Your task to perform on an android device: Open the web browser Image 0: 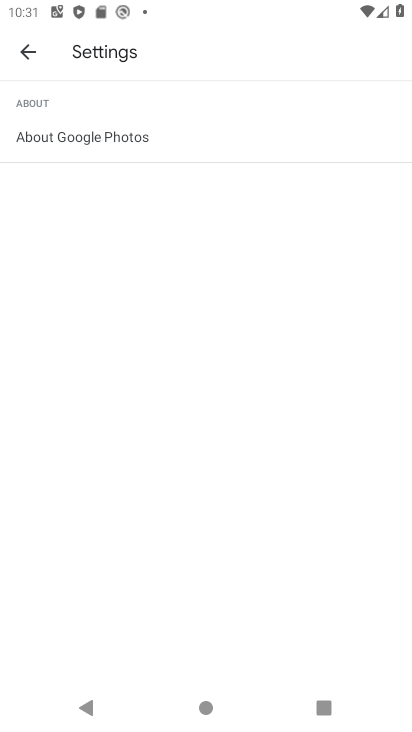
Step 0: click (13, 48)
Your task to perform on an android device: Open the web browser Image 1: 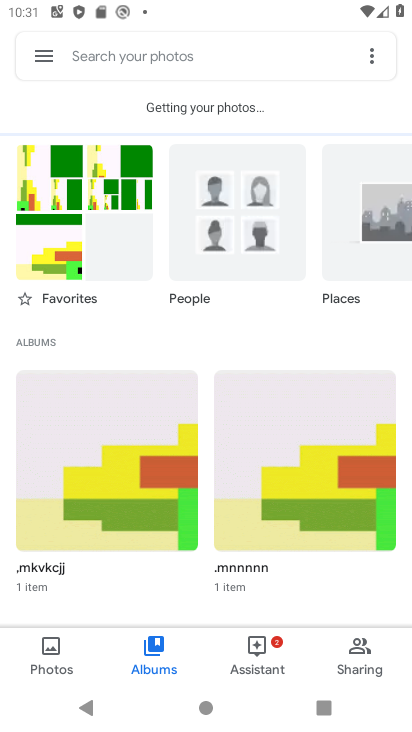
Step 1: press back button
Your task to perform on an android device: Open the web browser Image 2: 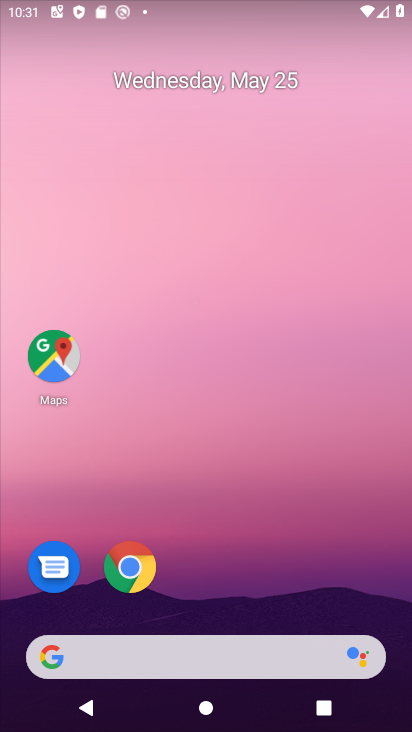
Step 2: drag from (269, 670) to (238, 121)
Your task to perform on an android device: Open the web browser Image 3: 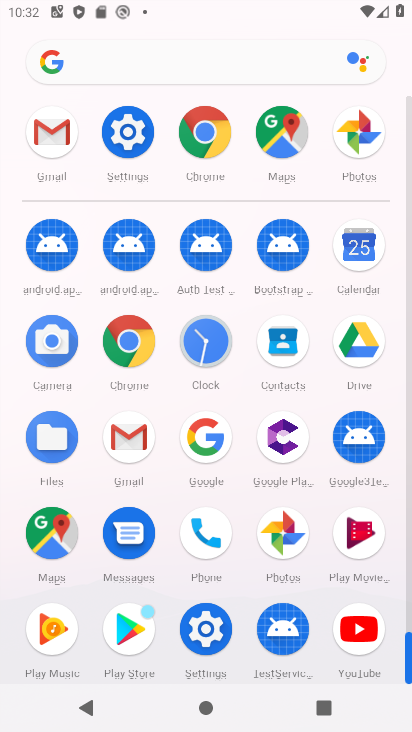
Step 3: click (196, 138)
Your task to perform on an android device: Open the web browser Image 4: 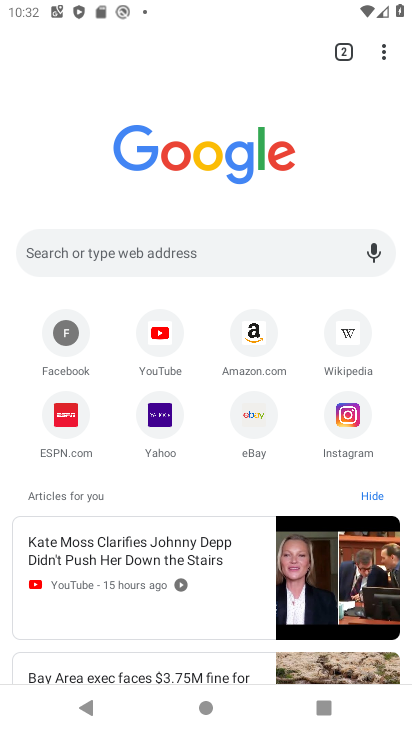
Step 4: click (62, 249)
Your task to perform on an android device: Open the web browser Image 5: 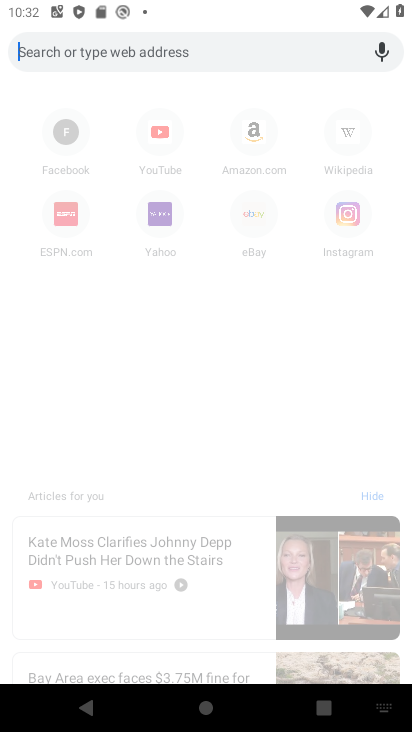
Step 5: click (12, 44)
Your task to perform on an android device: Open the web browser Image 6: 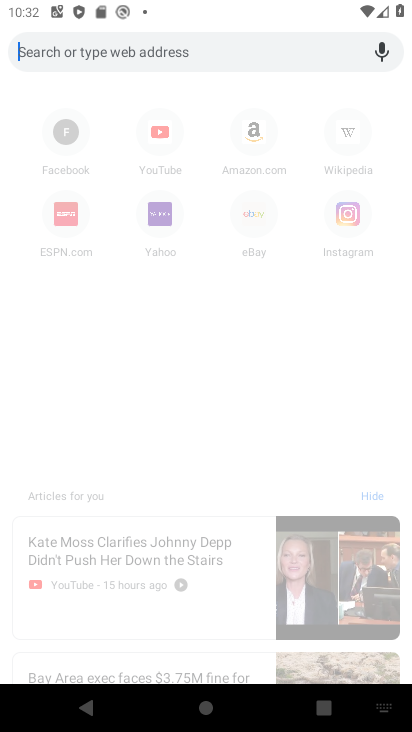
Step 6: click (14, 47)
Your task to perform on an android device: Open the web browser Image 7: 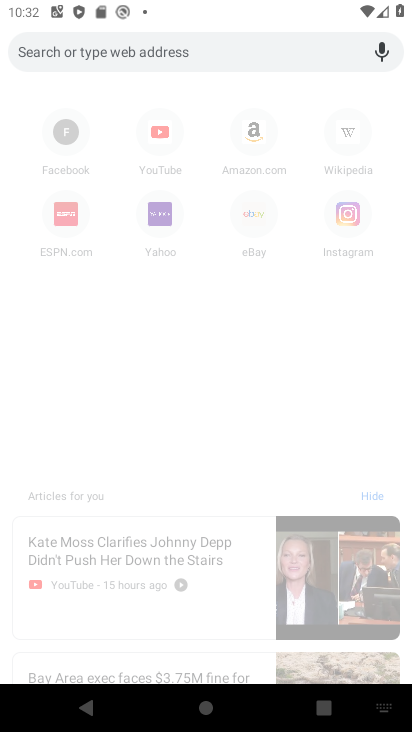
Step 7: click (22, 47)
Your task to perform on an android device: Open the web browser Image 8: 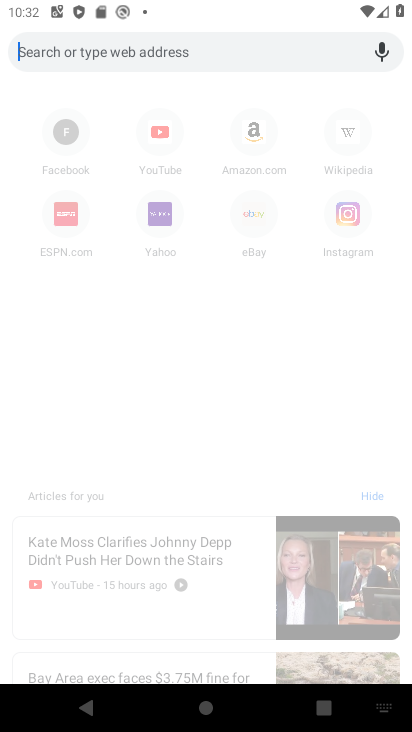
Step 8: click (26, 45)
Your task to perform on an android device: Open the web browser Image 9: 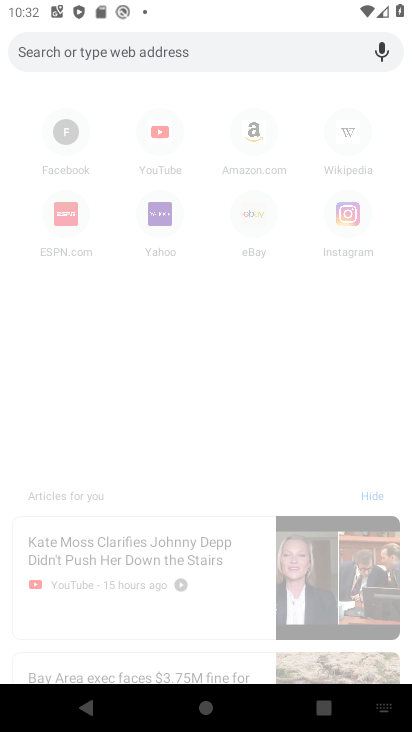
Step 9: press back button
Your task to perform on an android device: Open the web browser Image 10: 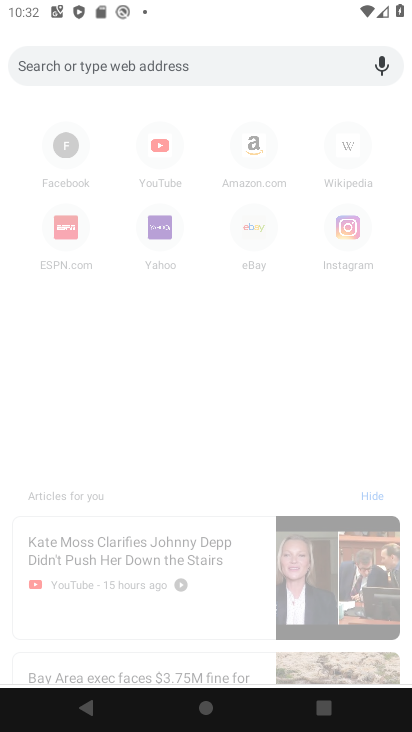
Step 10: press back button
Your task to perform on an android device: Open the web browser Image 11: 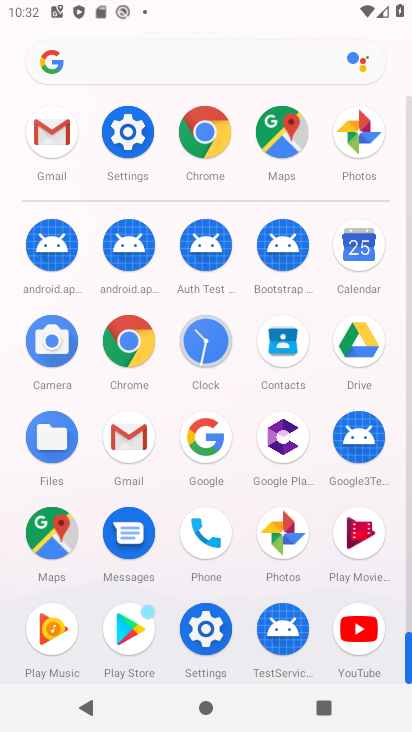
Step 11: click (212, 124)
Your task to perform on an android device: Open the web browser Image 12: 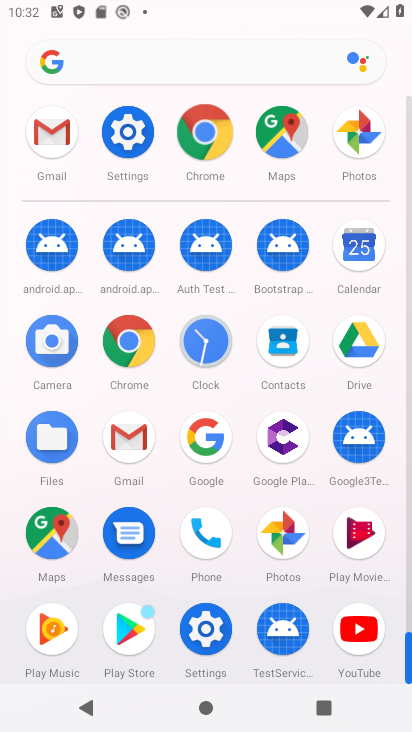
Step 12: click (212, 124)
Your task to perform on an android device: Open the web browser Image 13: 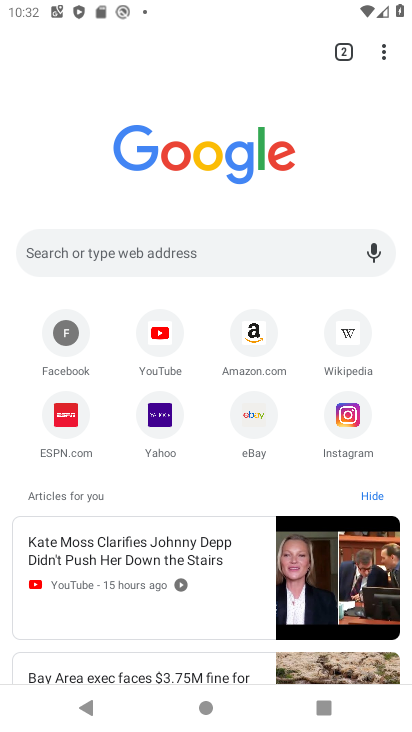
Step 13: task complete